Your task to perform on an android device: View the shopping cart on ebay. Search for "acer nitro" on ebay, select the first entry, add it to the cart, then select checkout. Image 0: 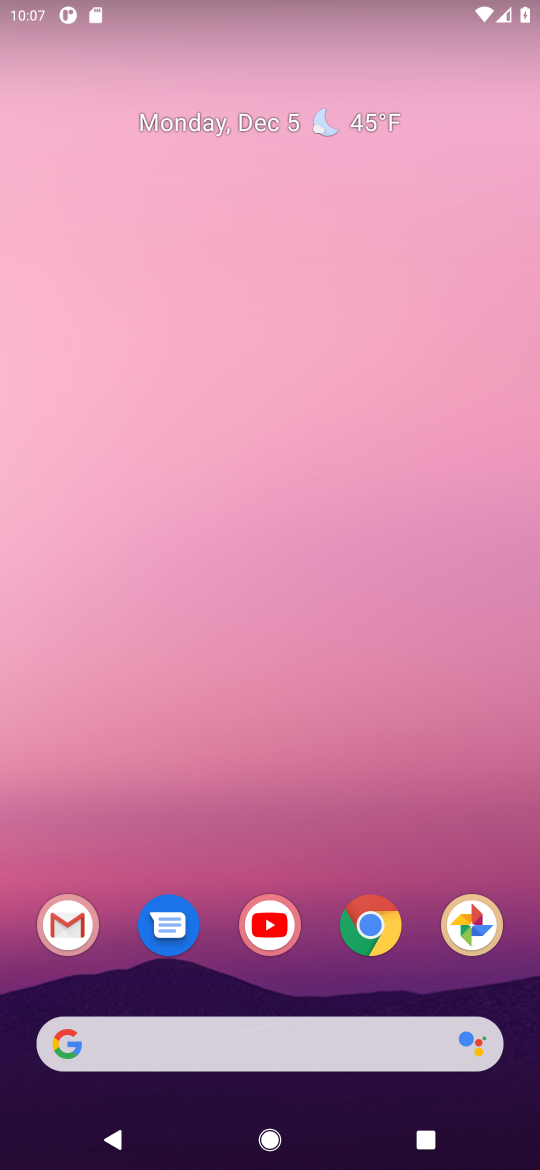
Step 0: click (380, 933)
Your task to perform on an android device: View the shopping cart on ebay. Search for "acer nitro" on ebay, select the first entry, add it to the cart, then select checkout. Image 1: 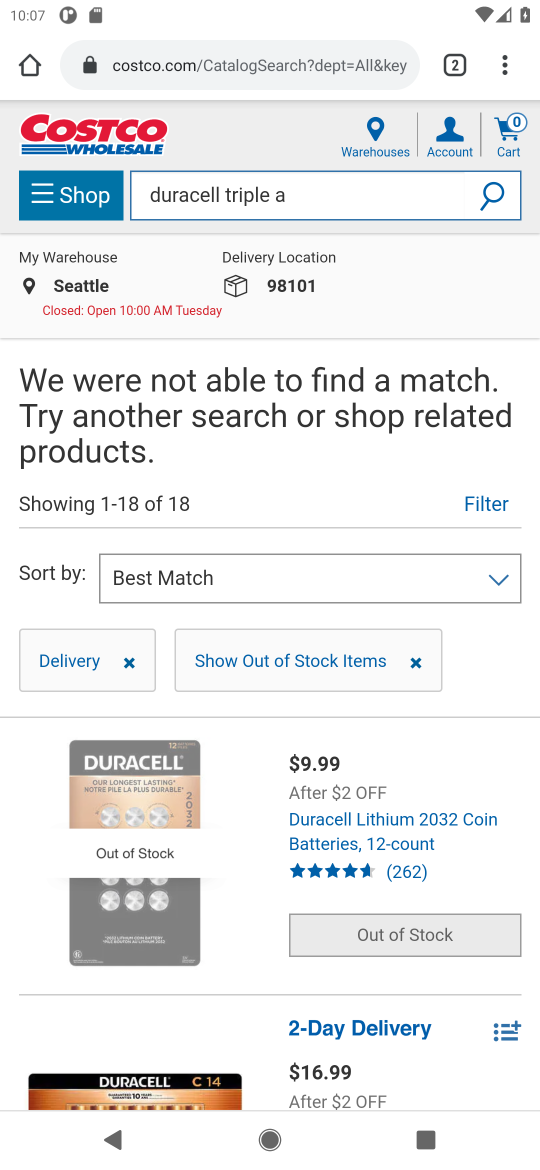
Step 1: click (191, 55)
Your task to perform on an android device: View the shopping cart on ebay. Search for "acer nitro" on ebay, select the first entry, add it to the cart, then select checkout. Image 2: 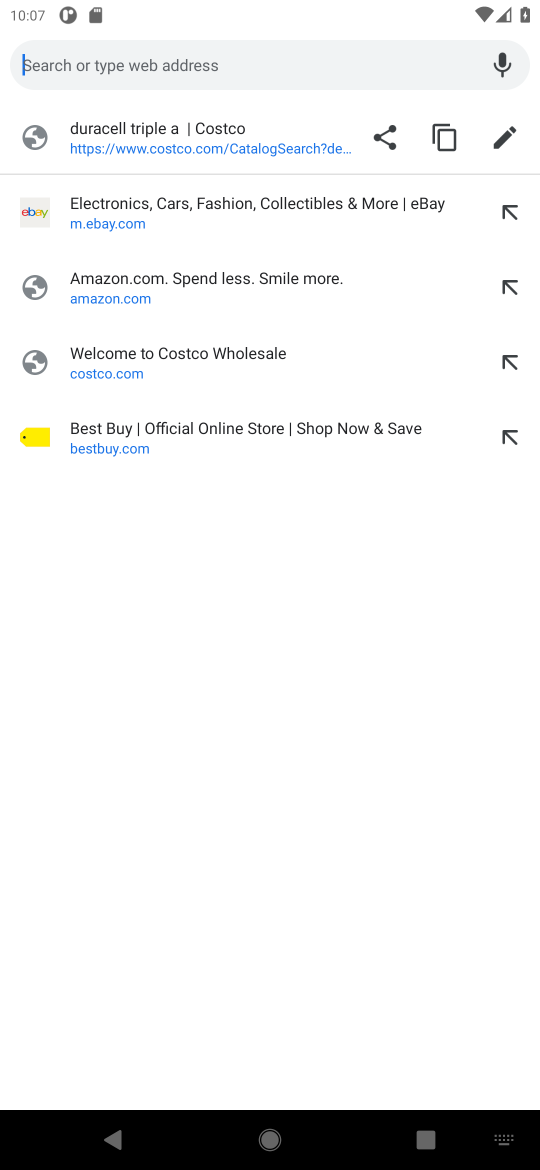
Step 2: click (100, 224)
Your task to perform on an android device: View the shopping cart on ebay. Search for "acer nitro" on ebay, select the first entry, add it to the cart, then select checkout. Image 3: 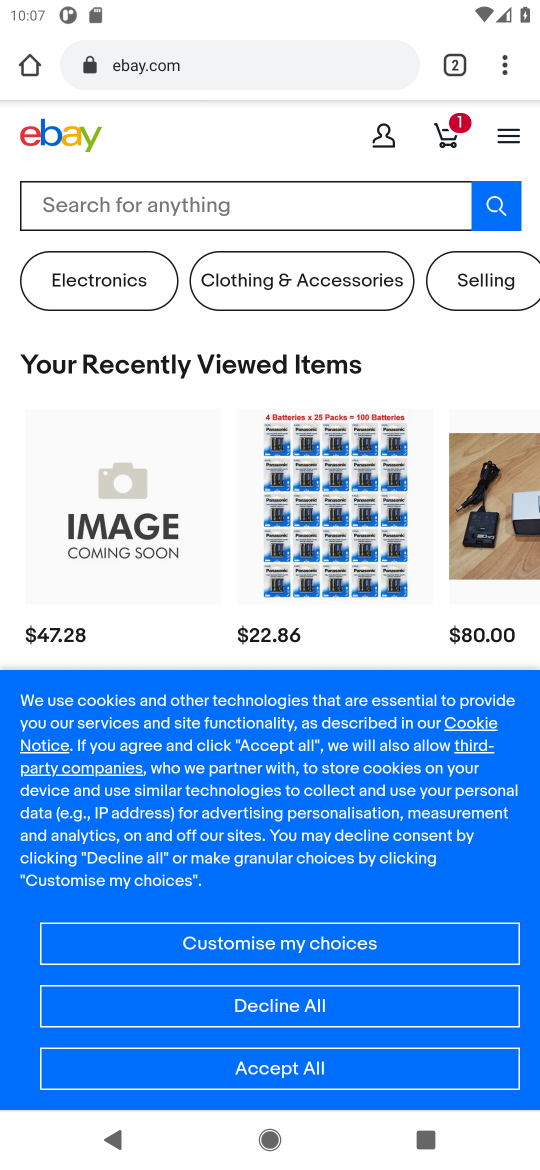
Step 3: click (448, 139)
Your task to perform on an android device: View the shopping cart on ebay. Search for "acer nitro" on ebay, select the first entry, add it to the cart, then select checkout. Image 4: 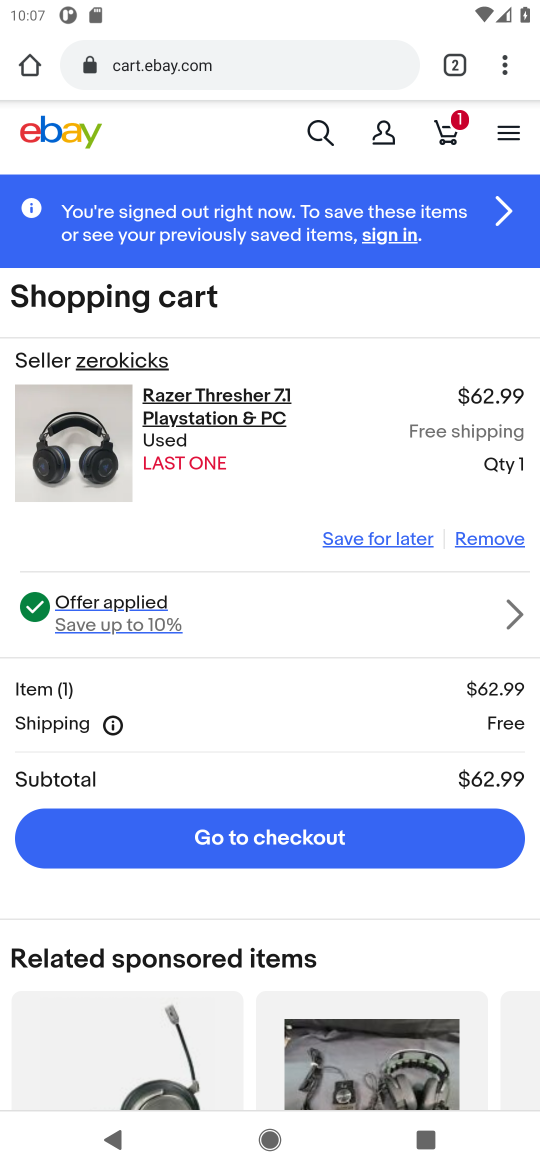
Step 4: click (319, 137)
Your task to perform on an android device: View the shopping cart on ebay. Search for "acer nitro" on ebay, select the first entry, add it to the cart, then select checkout. Image 5: 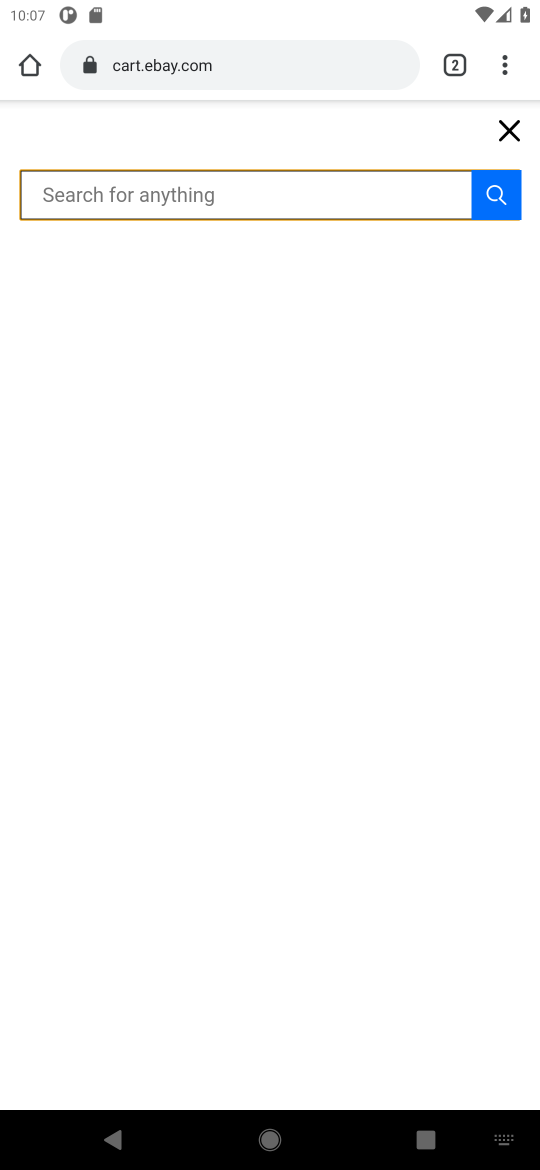
Step 5: type "acer nitro"
Your task to perform on an android device: View the shopping cart on ebay. Search for "acer nitro" on ebay, select the first entry, add it to the cart, then select checkout. Image 6: 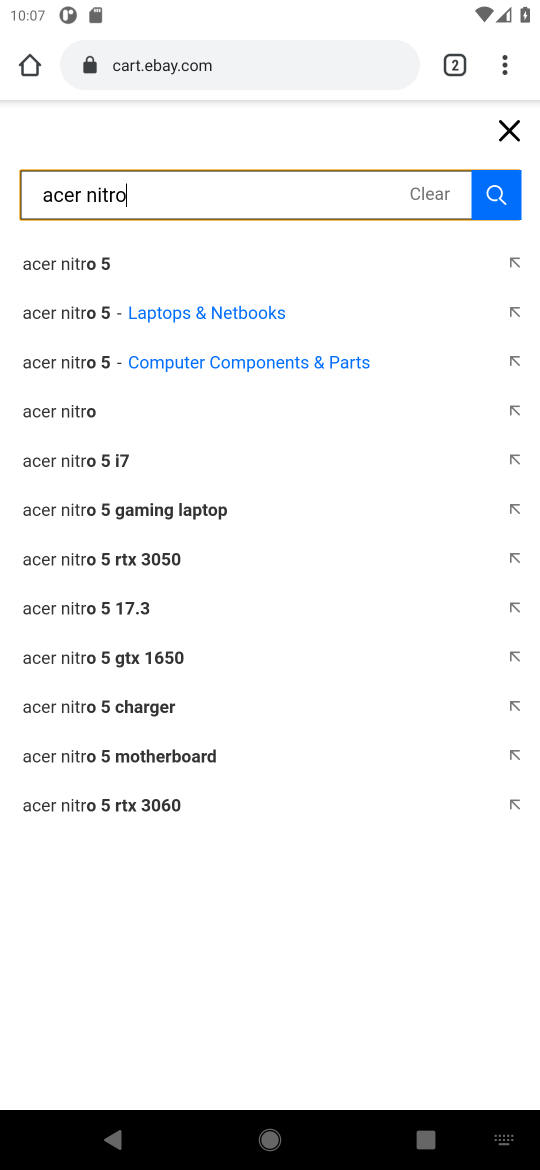
Step 6: click (58, 424)
Your task to perform on an android device: View the shopping cart on ebay. Search for "acer nitro" on ebay, select the first entry, add it to the cart, then select checkout. Image 7: 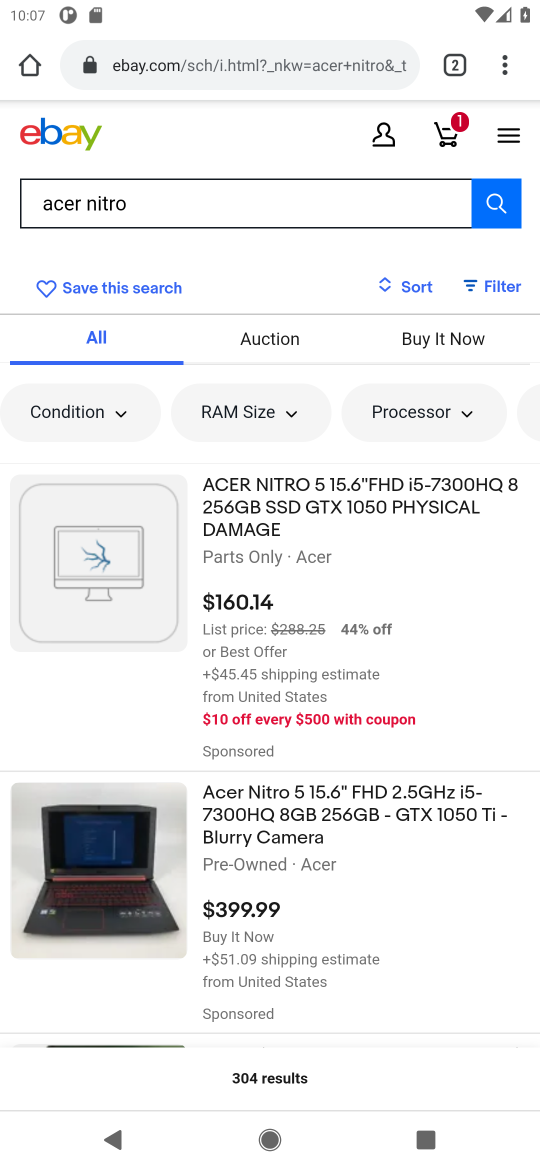
Step 7: click (294, 514)
Your task to perform on an android device: View the shopping cart on ebay. Search for "acer nitro" on ebay, select the first entry, add it to the cart, then select checkout. Image 8: 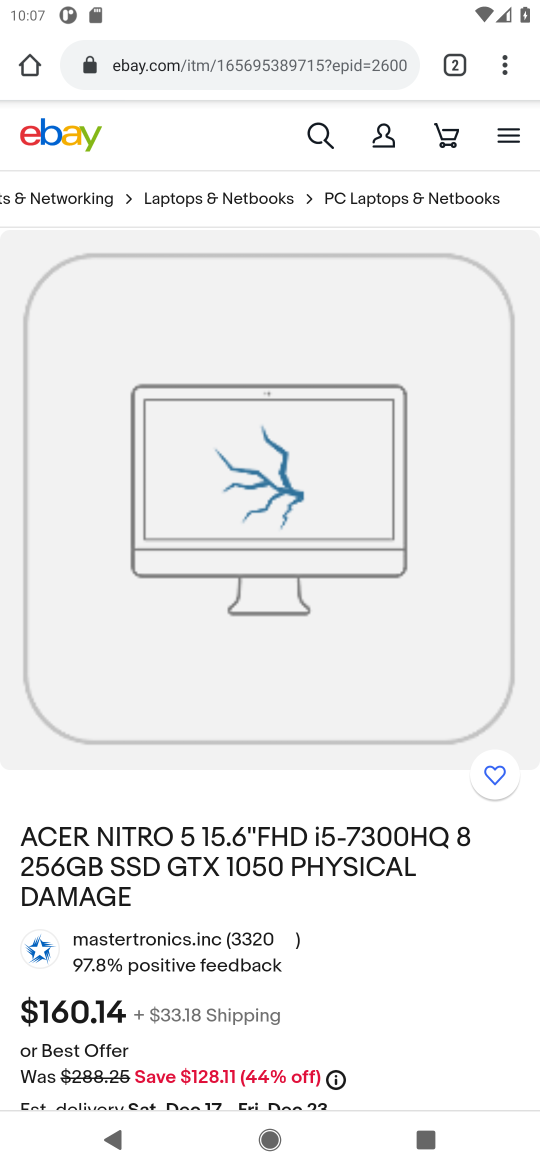
Step 8: drag from (269, 831) to (256, 463)
Your task to perform on an android device: View the shopping cart on ebay. Search for "acer nitro" on ebay, select the first entry, add it to the cart, then select checkout. Image 9: 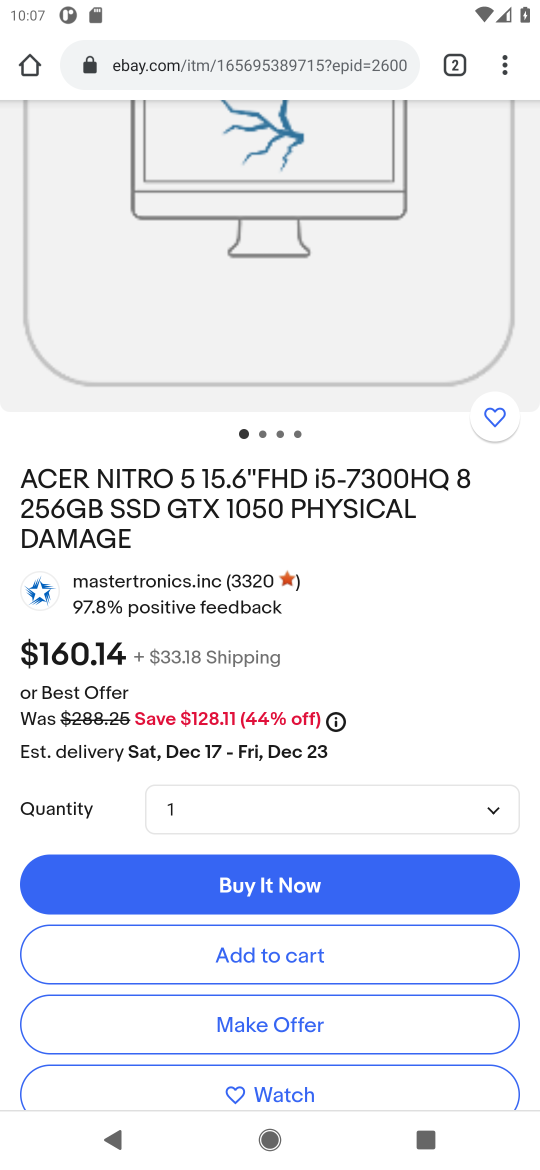
Step 9: click (230, 948)
Your task to perform on an android device: View the shopping cart on ebay. Search for "acer nitro" on ebay, select the first entry, add it to the cart, then select checkout. Image 10: 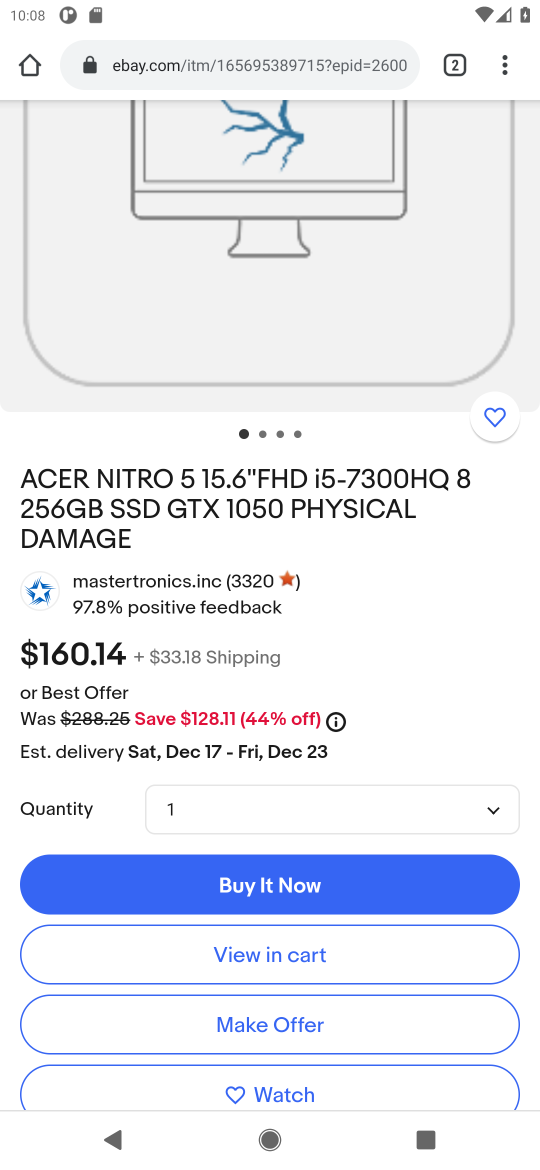
Step 10: click (236, 957)
Your task to perform on an android device: View the shopping cart on ebay. Search for "acer nitro" on ebay, select the first entry, add it to the cart, then select checkout. Image 11: 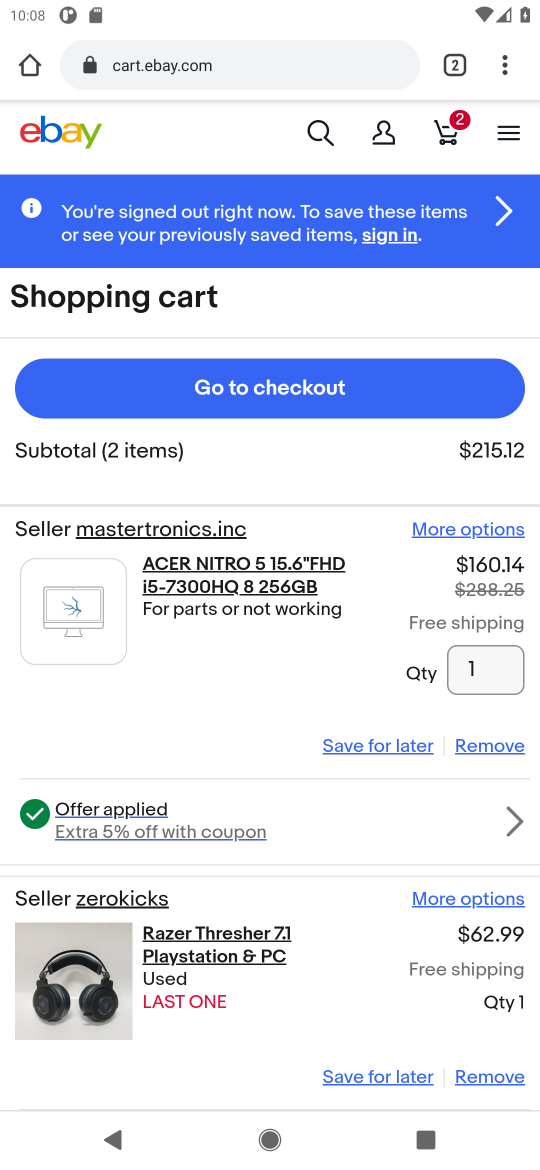
Step 11: click (255, 401)
Your task to perform on an android device: View the shopping cart on ebay. Search for "acer nitro" on ebay, select the first entry, add it to the cart, then select checkout. Image 12: 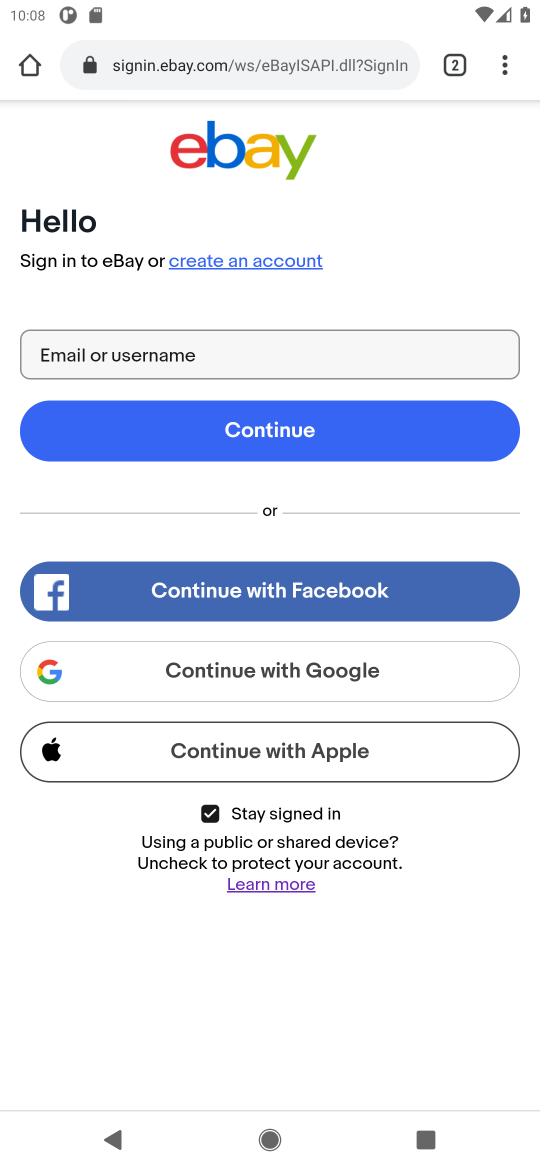
Step 12: task complete